Your task to perform on an android device: turn on the 12-hour format for clock Image 0: 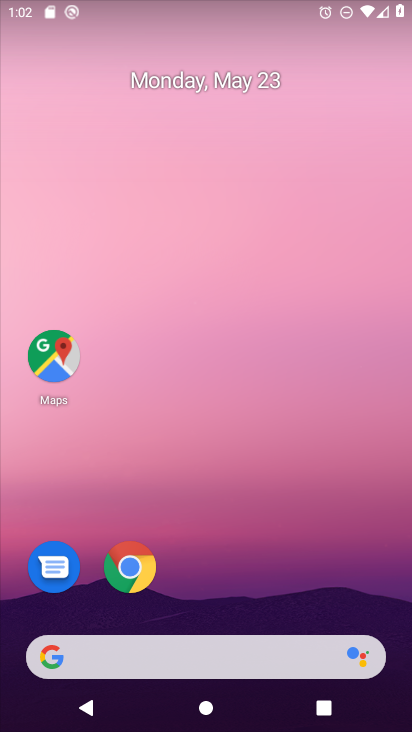
Step 0: drag from (206, 612) to (269, 52)
Your task to perform on an android device: turn on the 12-hour format for clock Image 1: 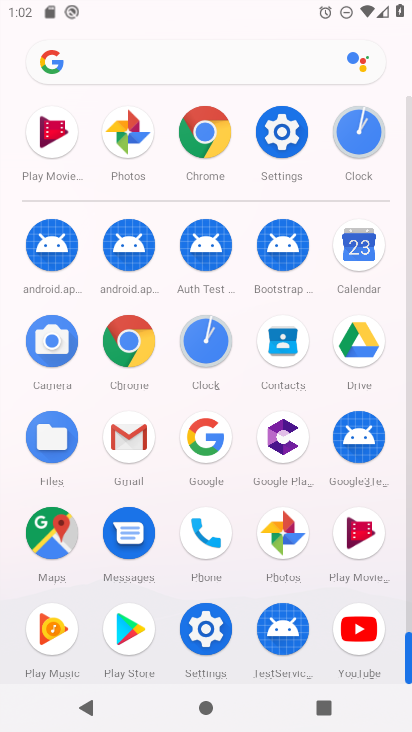
Step 1: click (348, 138)
Your task to perform on an android device: turn on the 12-hour format for clock Image 2: 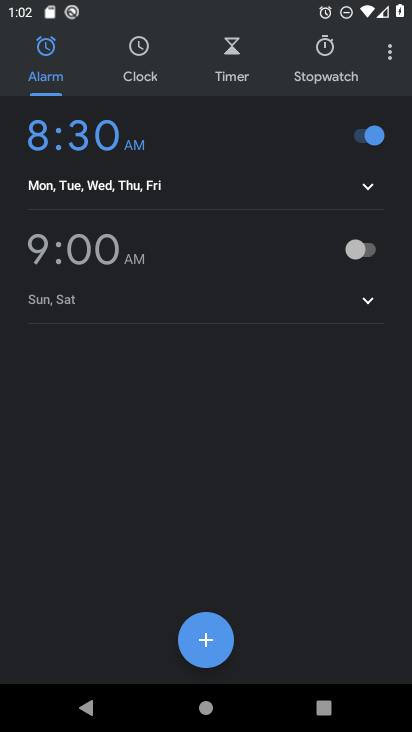
Step 2: click (397, 50)
Your task to perform on an android device: turn on the 12-hour format for clock Image 3: 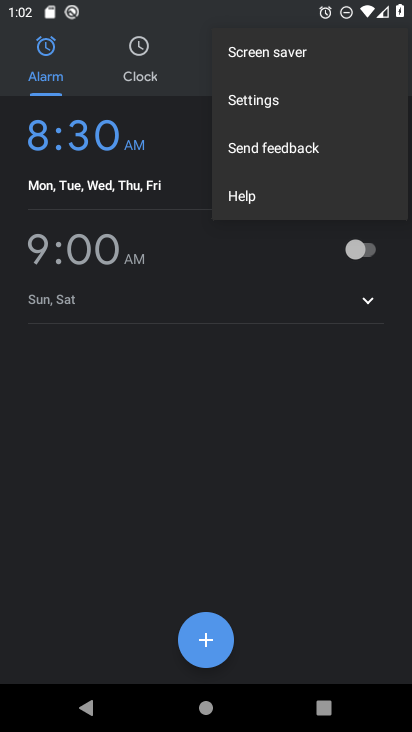
Step 3: click (251, 103)
Your task to perform on an android device: turn on the 12-hour format for clock Image 4: 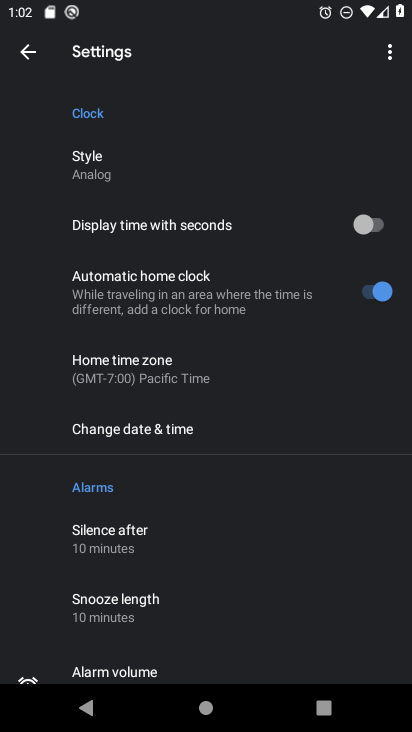
Step 4: task complete